Your task to perform on an android device: open app "Contacts" Image 0: 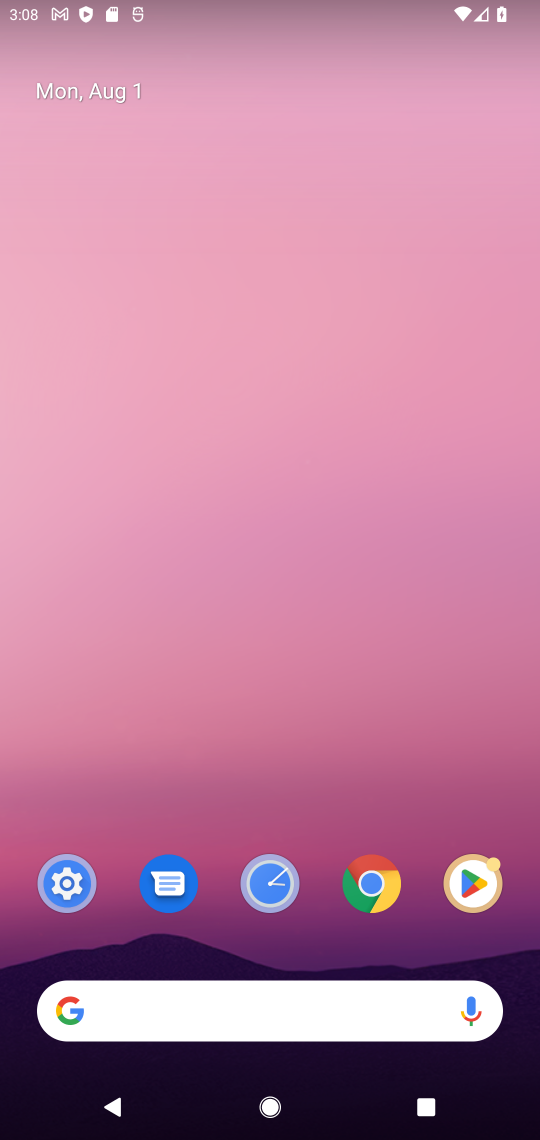
Step 0: drag from (287, 992) to (378, 41)
Your task to perform on an android device: open app "Contacts" Image 1: 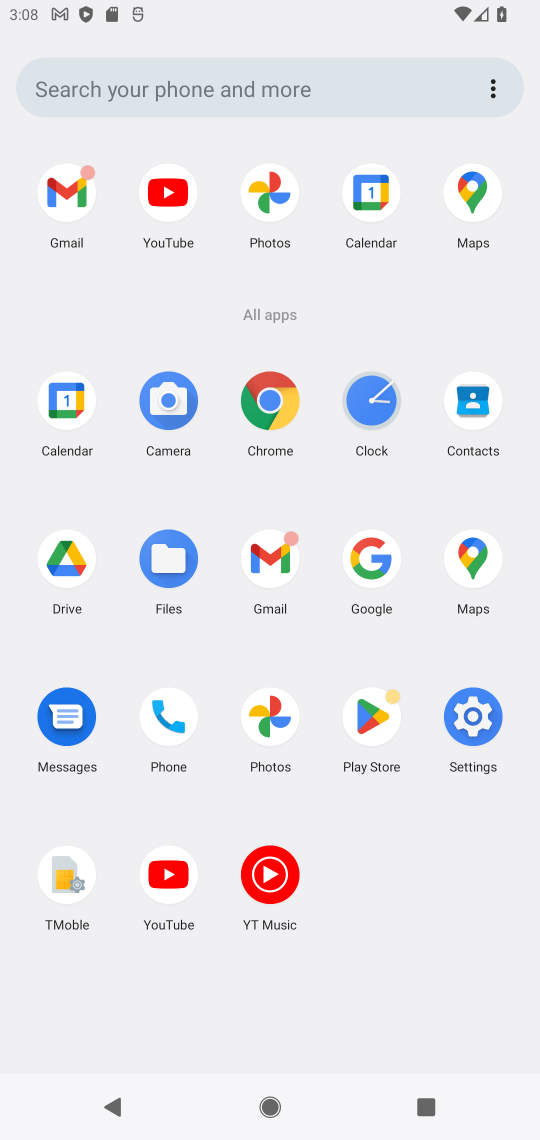
Step 1: click (386, 727)
Your task to perform on an android device: open app "Contacts" Image 2: 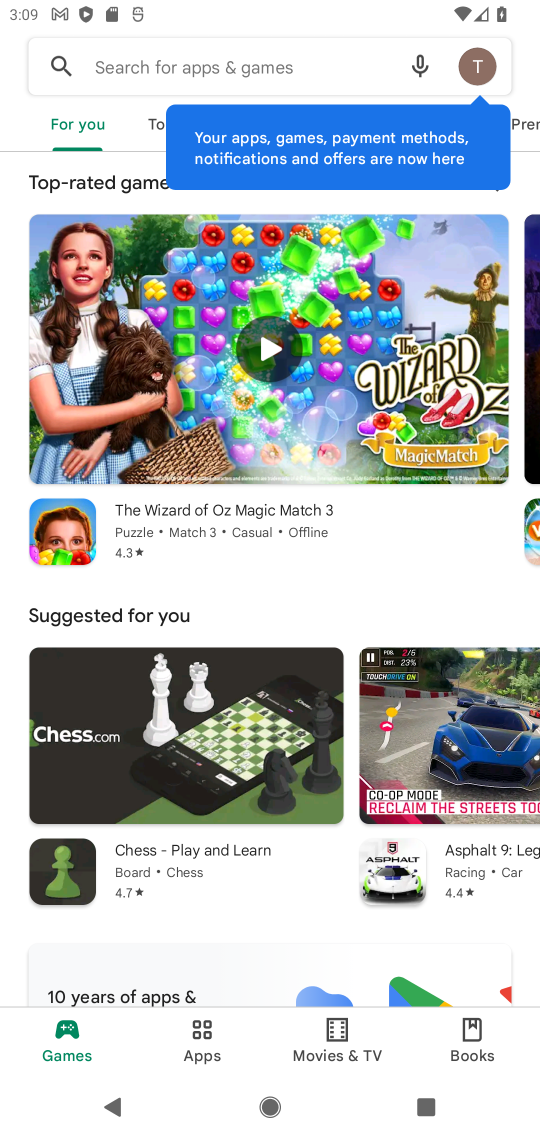
Step 2: click (279, 29)
Your task to perform on an android device: open app "Contacts" Image 3: 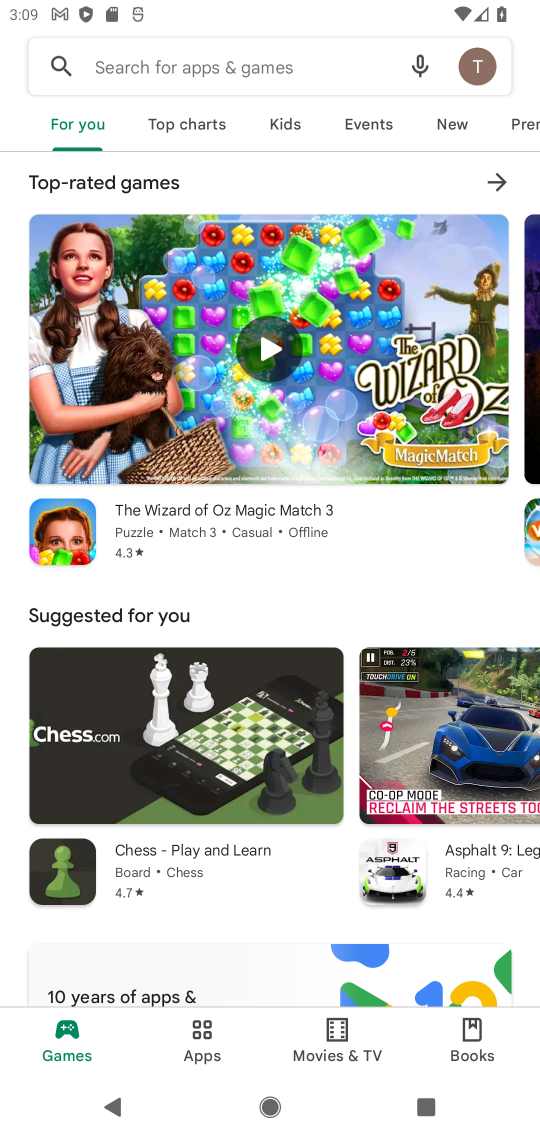
Step 3: click (236, 57)
Your task to perform on an android device: open app "Contacts" Image 4: 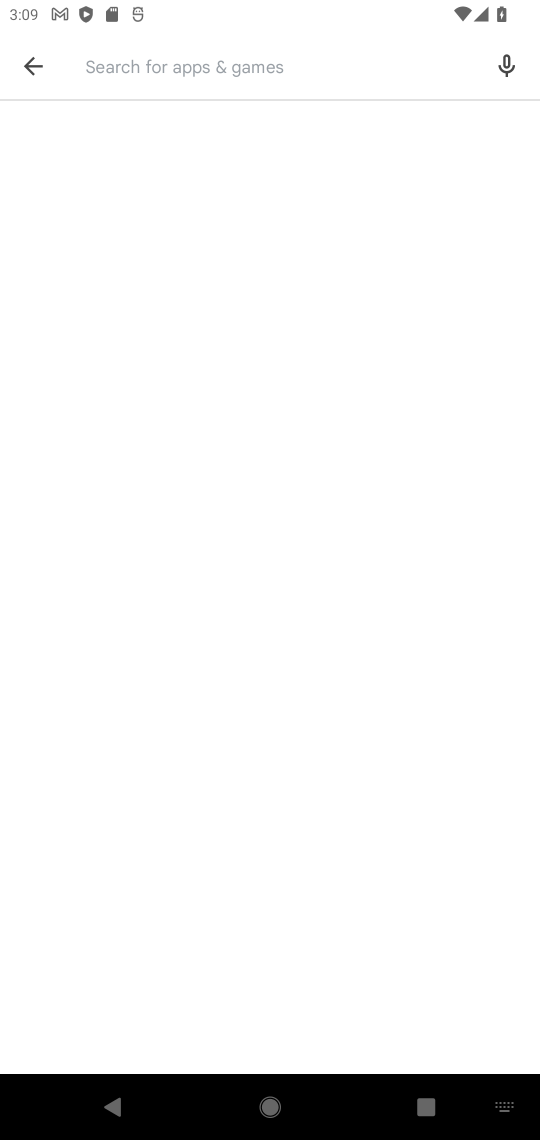
Step 4: type "contacts"
Your task to perform on an android device: open app "Contacts" Image 5: 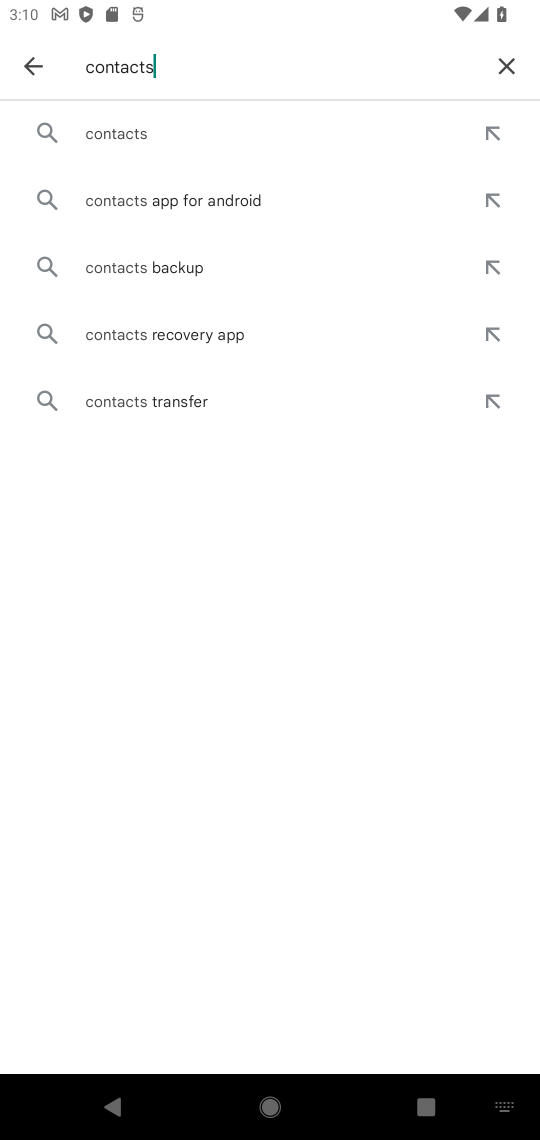
Step 5: click (196, 152)
Your task to perform on an android device: open app "Contacts" Image 6: 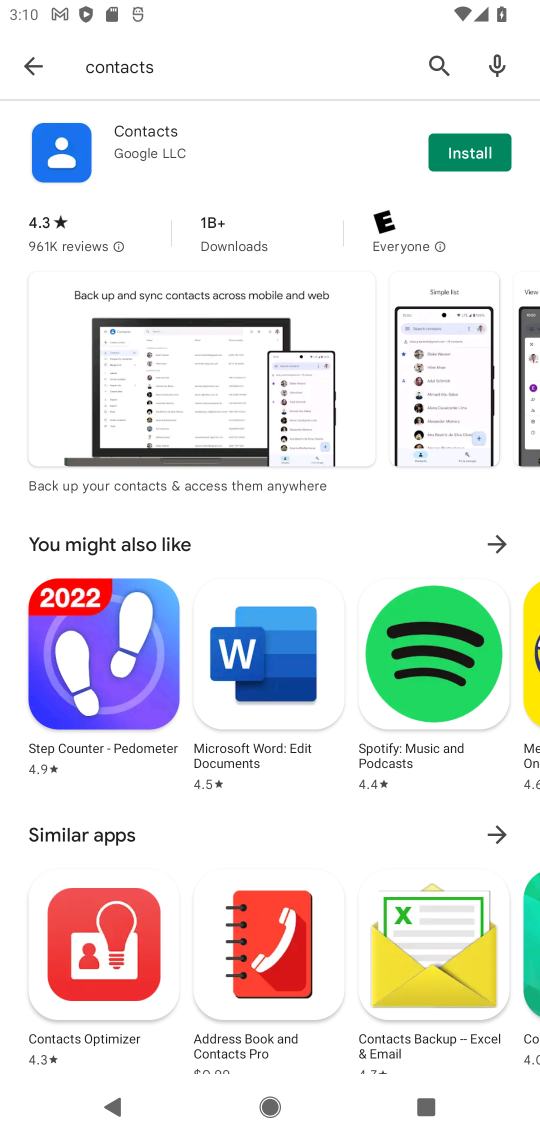
Step 6: task complete